Your task to perform on an android device: toggle data saver in the chrome app Image 0: 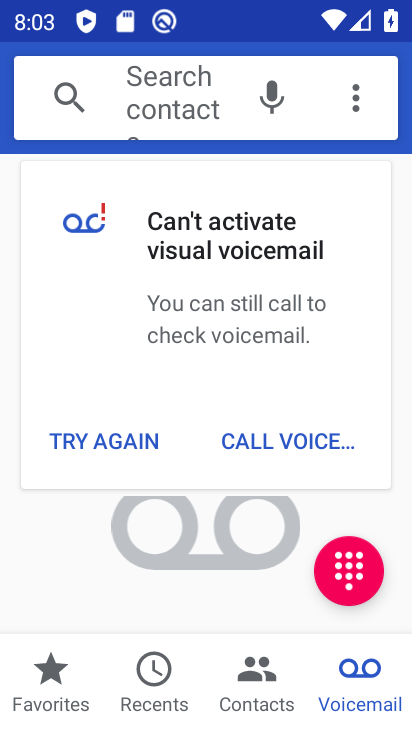
Step 0: press home button
Your task to perform on an android device: toggle data saver in the chrome app Image 1: 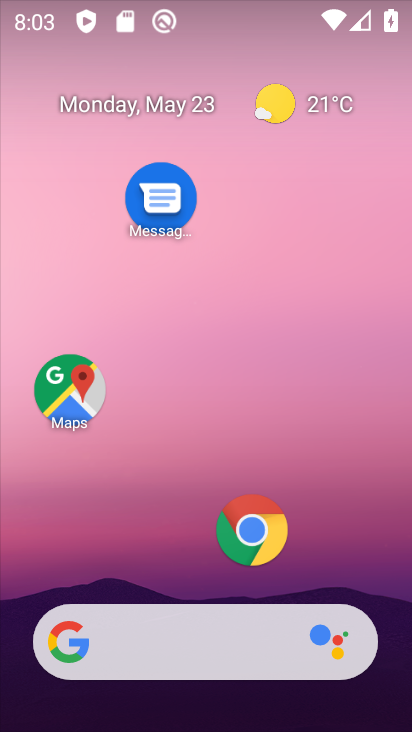
Step 1: click (260, 522)
Your task to perform on an android device: toggle data saver in the chrome app Image 2: 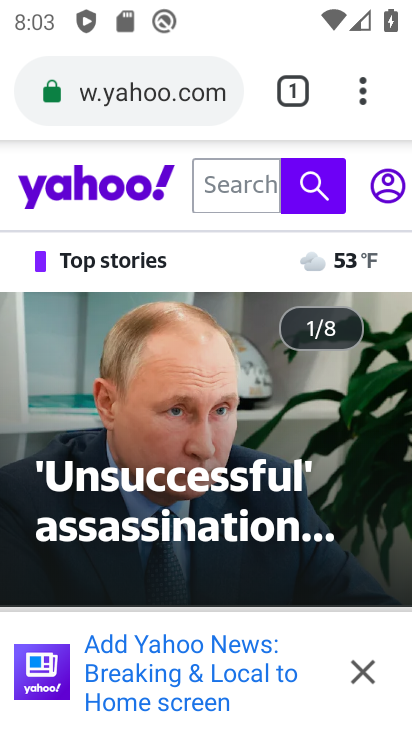
Step 2: click (369, 90)
Your task to perform on an android device: toggle data saver in the chrome app Image 3: 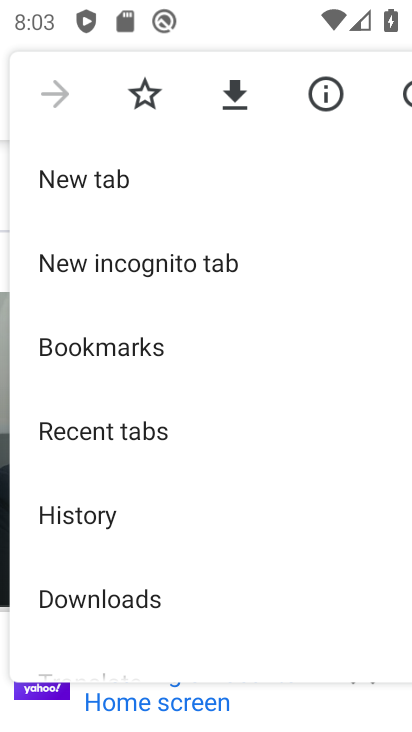
Step 3: drag from (185, 633) to (224, 302)
Your task to perform on an android device: toggle data saver in the chrome app Image 4: 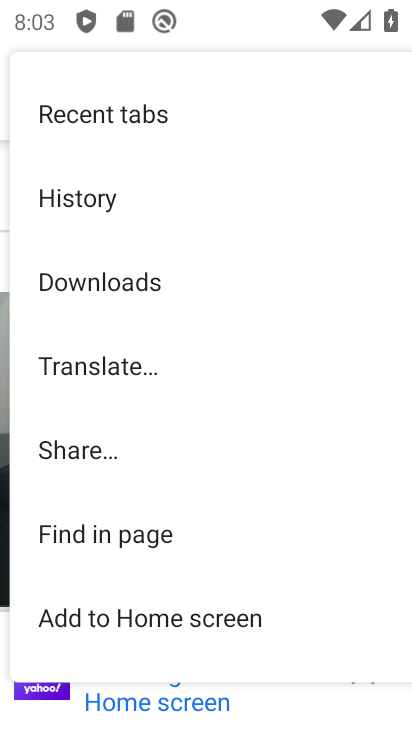
Step 4: drag from (99, 661) to (173, 238)
Your task to perform on an android device: toggle data saver in the chrome app Image 5: 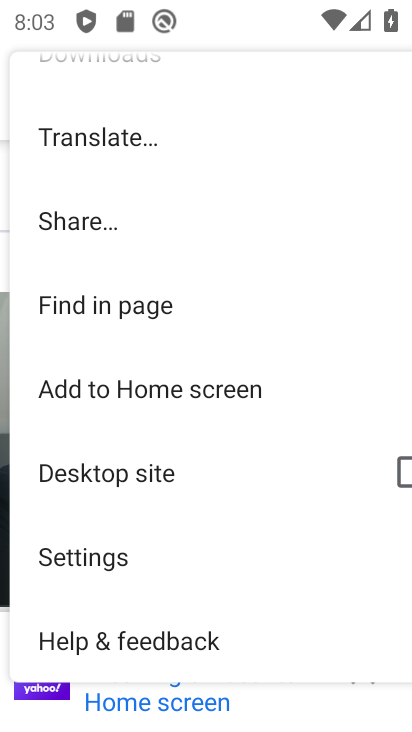
Step 5: click (95, 569)
Your task to perform on an android device: toggle data saver in the chrome app Image 6: 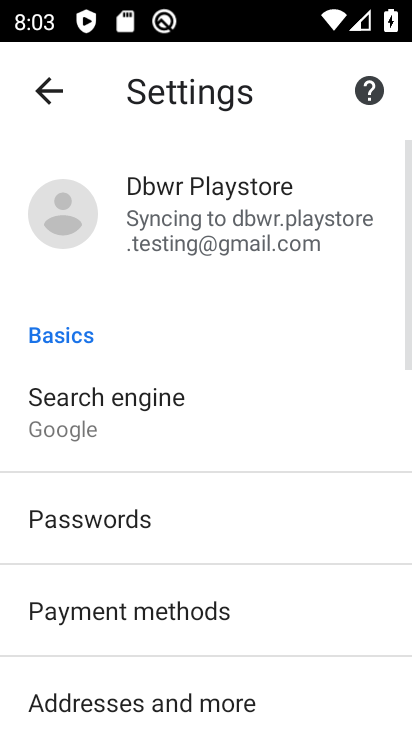
Step 6: drag from (95, 569) to (146, 190)
Your task to perform on an android device: toggle data saver in the chrome app Image 7: 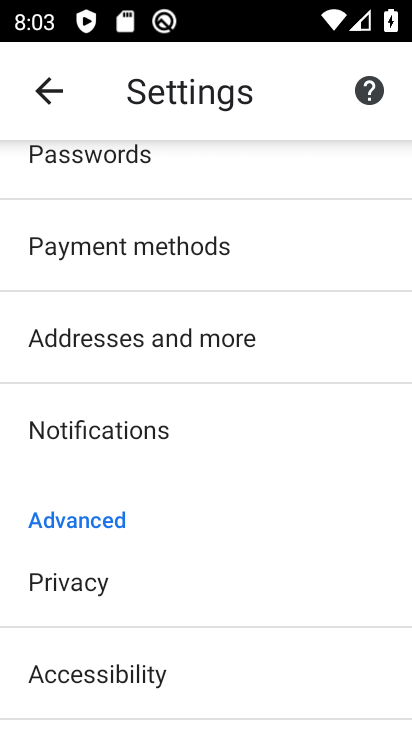
Step 7: drag from (148, 558) to (214, 276)
Your task to perform on an android device: toggle data saver in the chrome app Image 8: 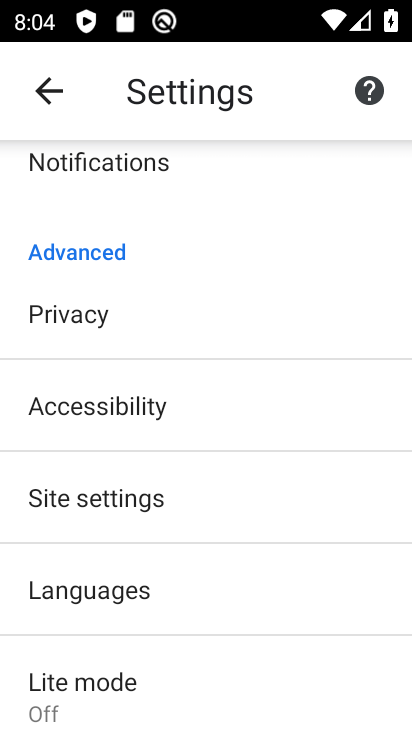
Step 8: click (109, 685)
Your task to perform on an android device: toggle data saver in the chrome app Image 9: 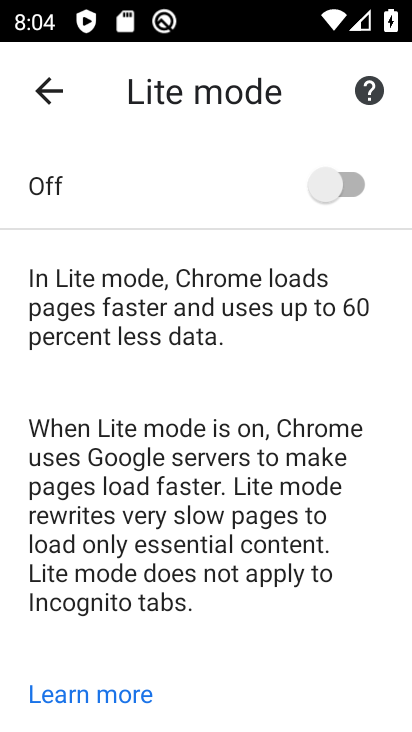
Step 9: click (340, 190)
Your task to perform on an android device: toggle data saver in the chrome app Image 10: 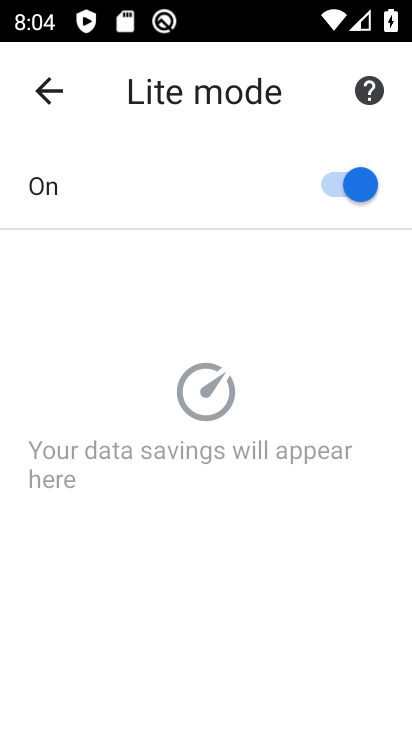
Step 10: click (340, 190)
Your task to perform on an android device: toggle data saver in the chrome app Image 11: 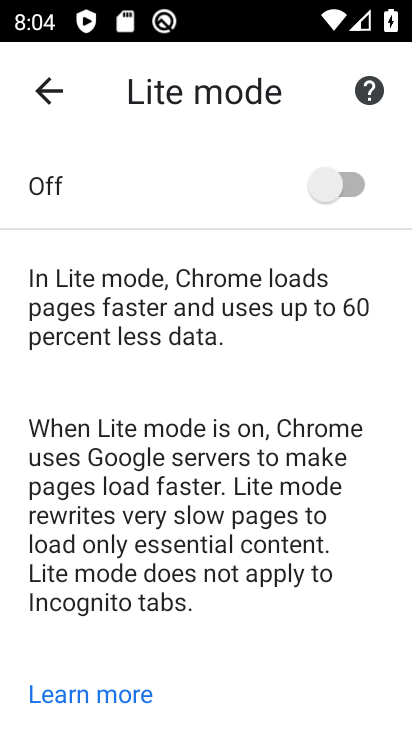
Step 11: task complete